Your task to perform on an android device: uninstall "Adobe Express: Graphic Design" Image 0: 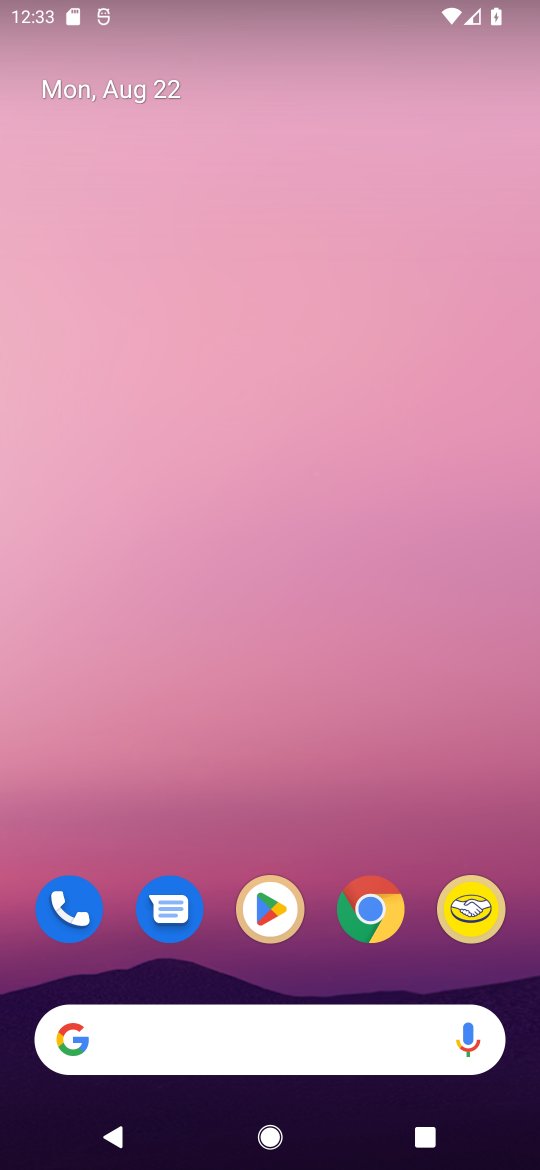
Step 0: click (265, 915)
Your task to perform on an android device: uninstall "Adobe Express: Graphic Design" Image 1: 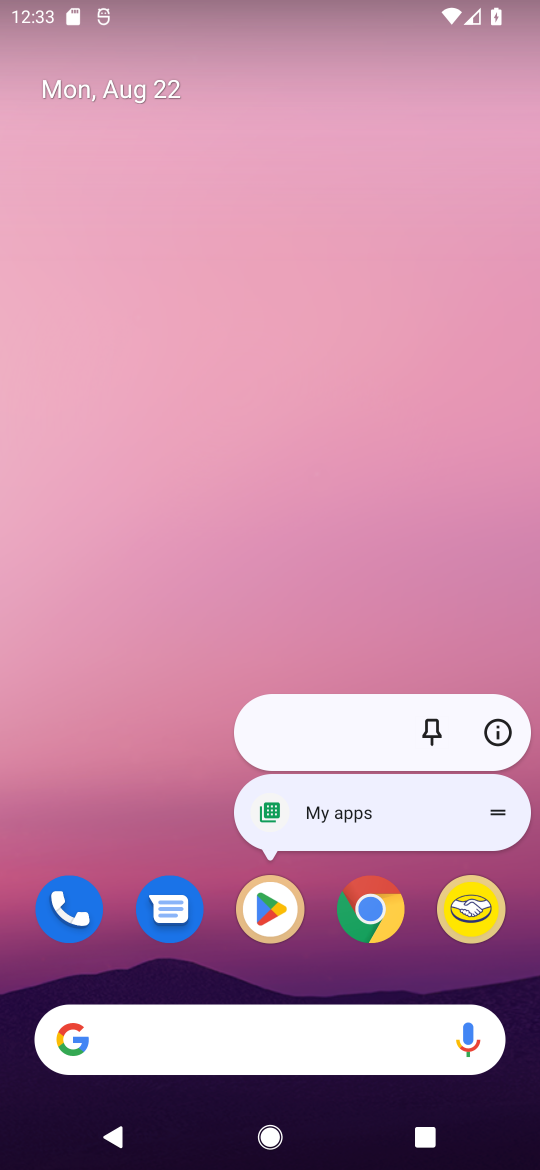
Step 1: click (267, 914)
Your task to perform on an android device: uninstall "Adobe Express: Graphic Design" Image 2: 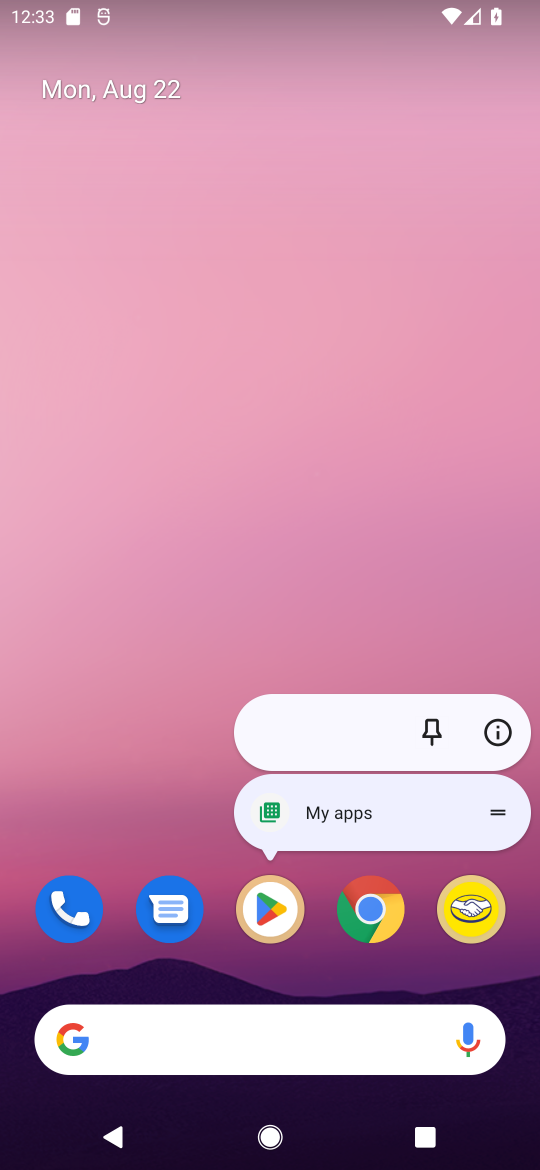
Step 2: click (267, 918)
Your task to perform on an android device: uninstall "Adobe Express: Graphic Design" Image 3: 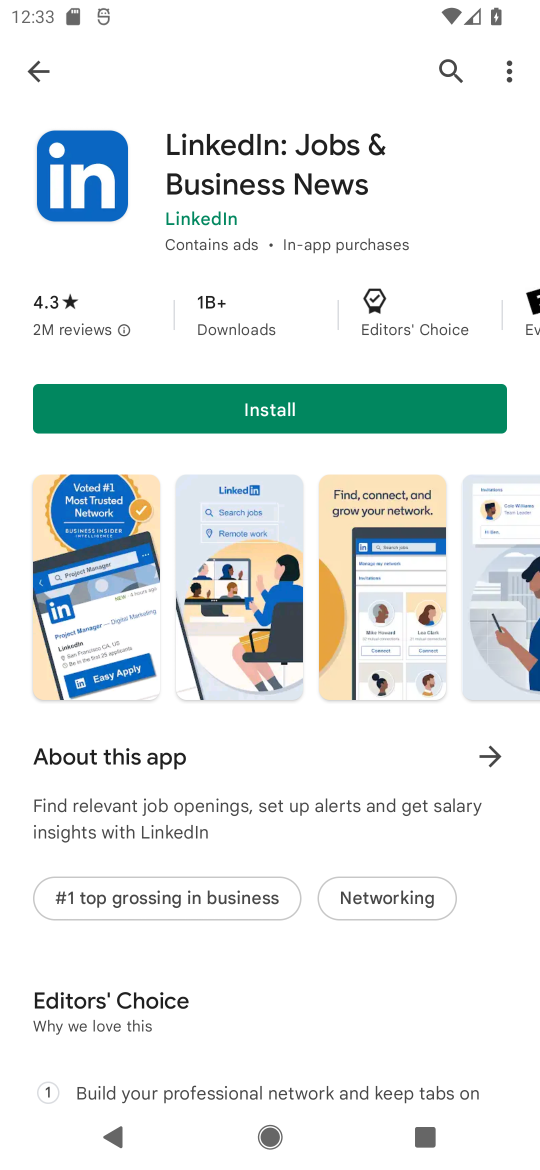
Step 3: click (446, 69)
Your task to perform on an android device: uninstall "Adobe Express: Graphic Design" Image 4: 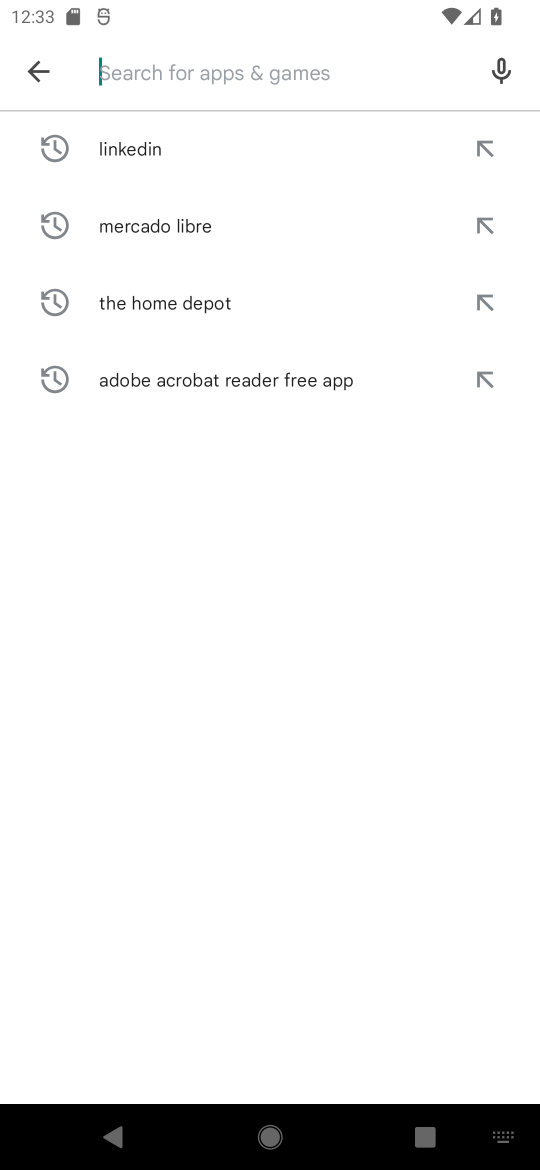
Step 4: click (214, 63)
Your task to perform on an android device: uninstall "Adobe Express: Graphic Design" Image 5: 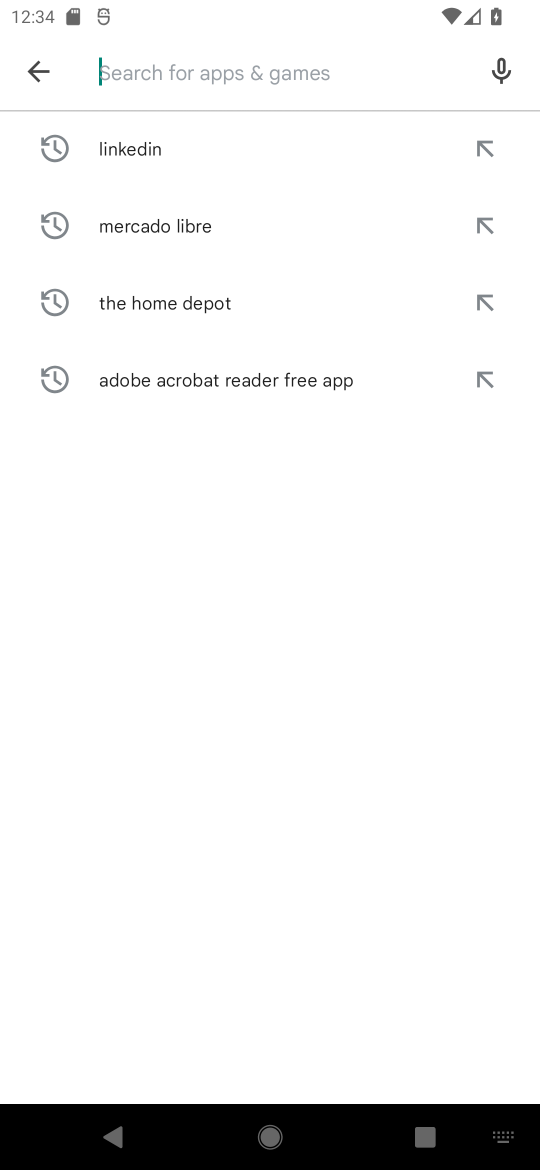
Step 5: type "Adobe Express"
Your task to perform on an android device: uninstall "Adobe Express: Graphic Design" Image 6: 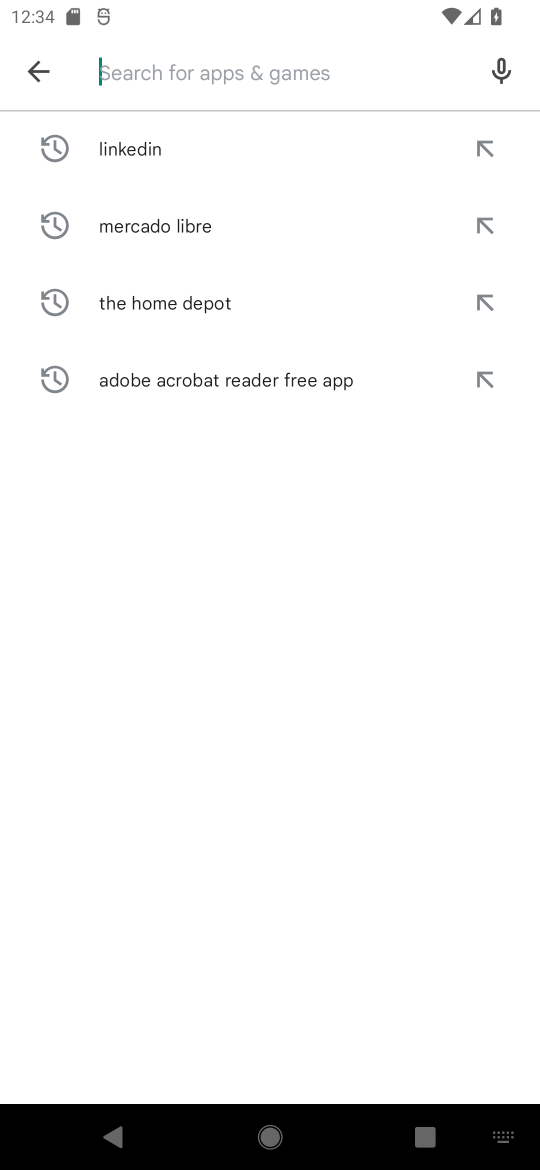
Step 6: click (232, 761)
Your task to perform on an android device: uninstall "Adobe Express: Graphic Design" Image 7: 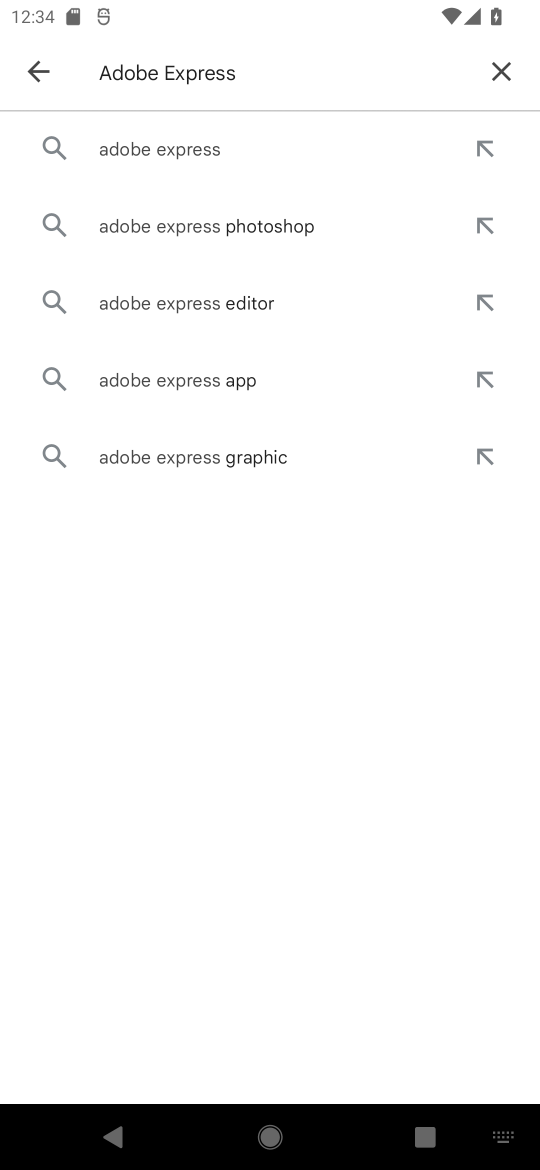
Step 7: click (183, 158)
Your task to perform on an android device: uninstall "Adobe Express: Graphic Design" Image 8: 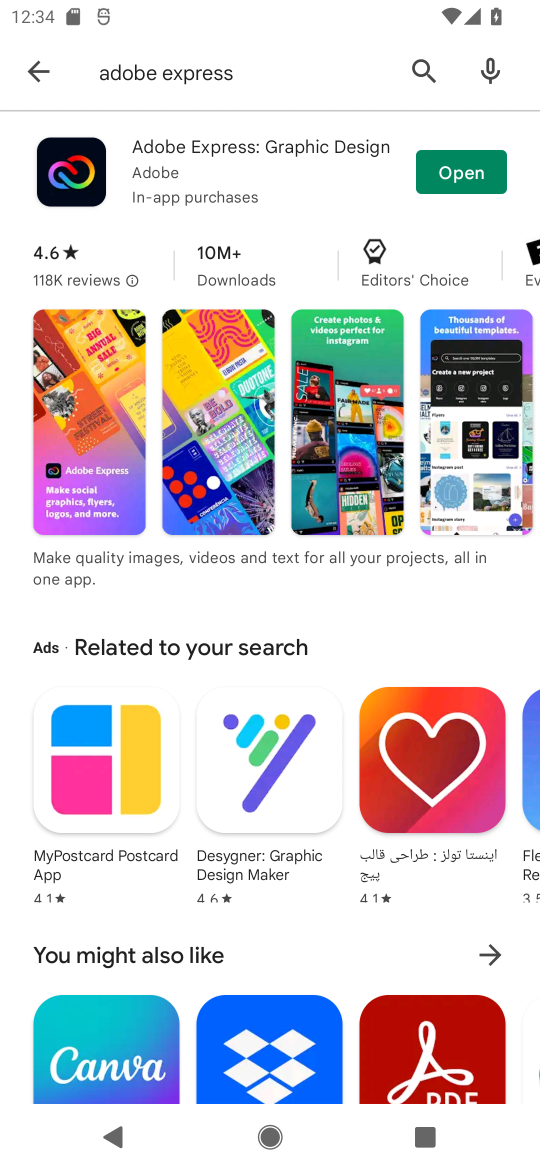
Step 8: click (235, 147)
Your task to perform on an android device: uninstall "Adobe Express: Graphic Design" Image 9: 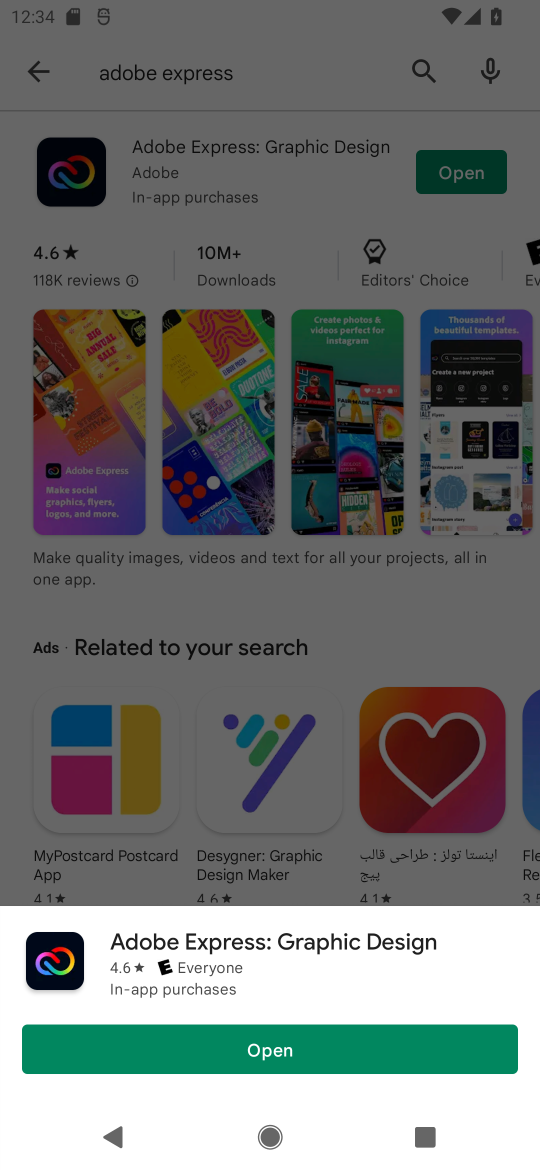
Step 9: click (185, 165)
Your task to perform on an android device: uninstall "Adobe Express: Graphic Design" Image 10: 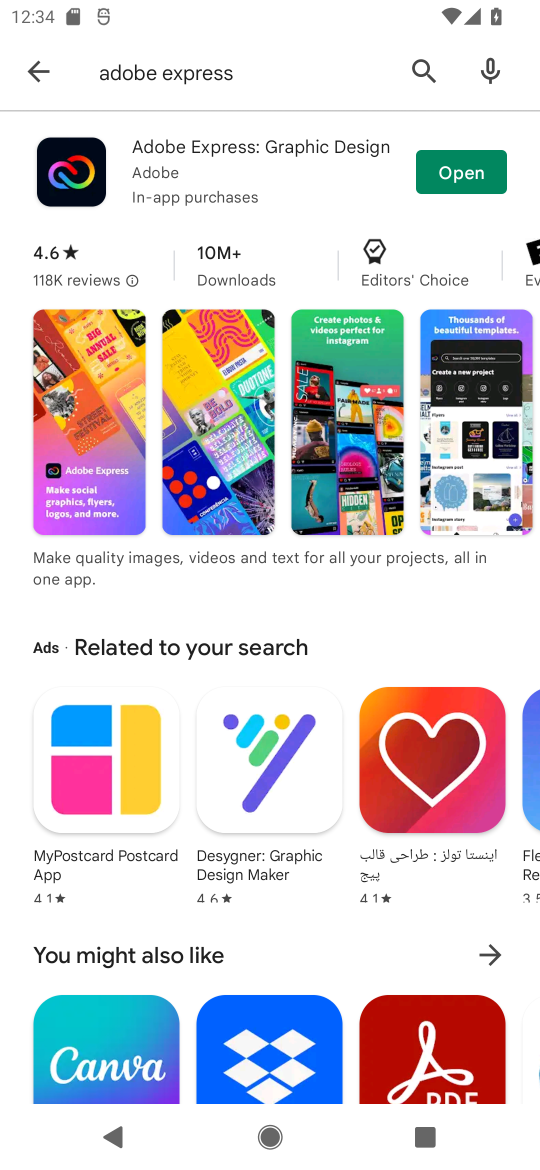
Step 10: click (186, 160)
Your task to perform on an android device: uninstall "Adobe Express: Graphic Design" Image 11: 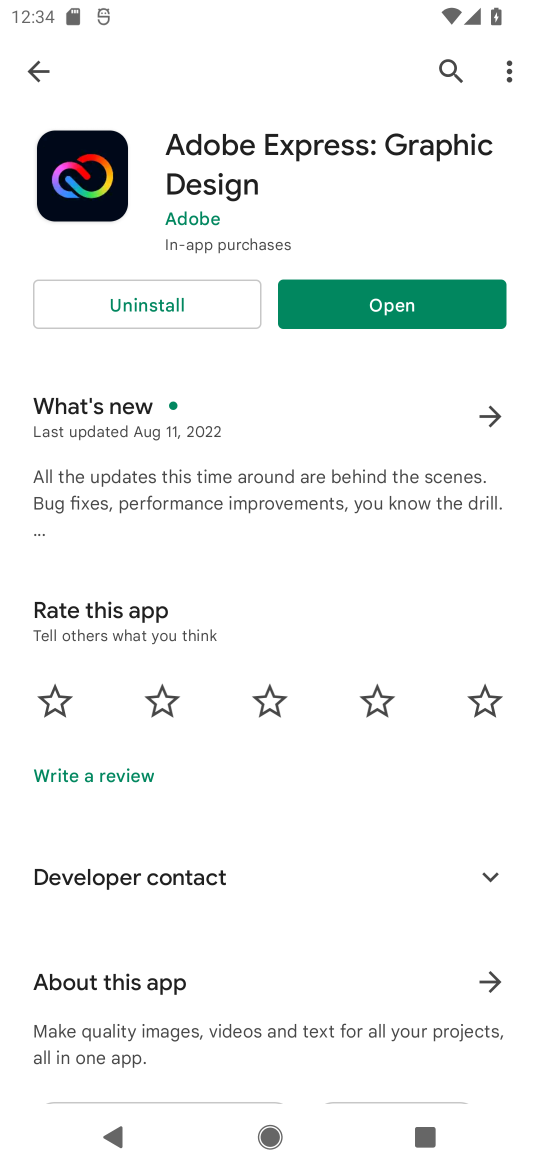
Step 11: click (161, 303)
Your task to perform on an android device: uninstall "Adobe Express: Graphic Design" Image 12: 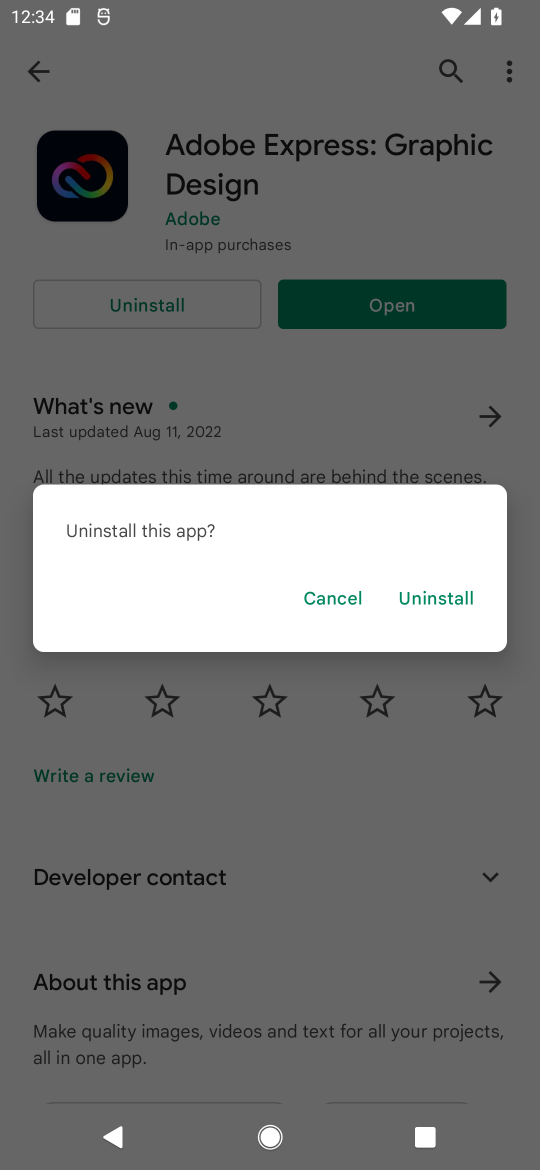
Step 12: click (453, 602)
Your task to perform on an android device: uninstall "Adobe Express: Graphic Design" Image 13: 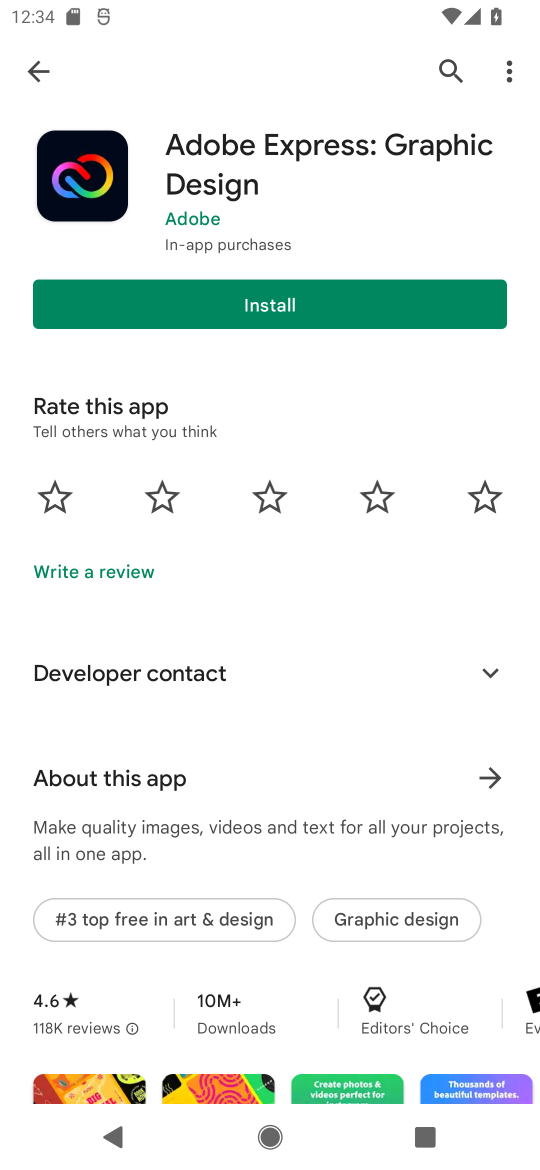
Step 13: task complete